Your task to perform on an android device: open app "Facebook" (install if not already installed) Image 0: 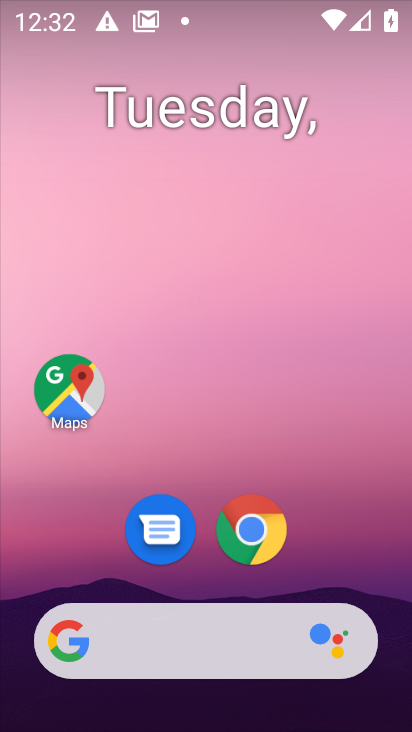
Step 0: drag from (202, 652) to (172, 177)
Your task to perform on an android device: open app "Facebook" (install if not already installed) Image 1: 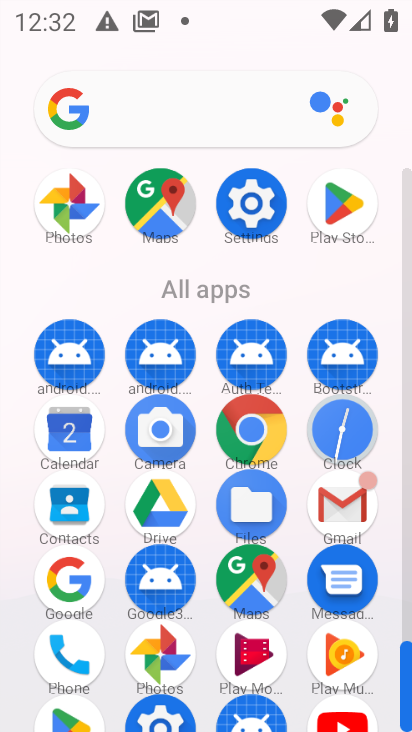
Step 1: click (322, 227)
Your task to perform on an android device: open app "Facebook" (install if not already installed) Image 2: 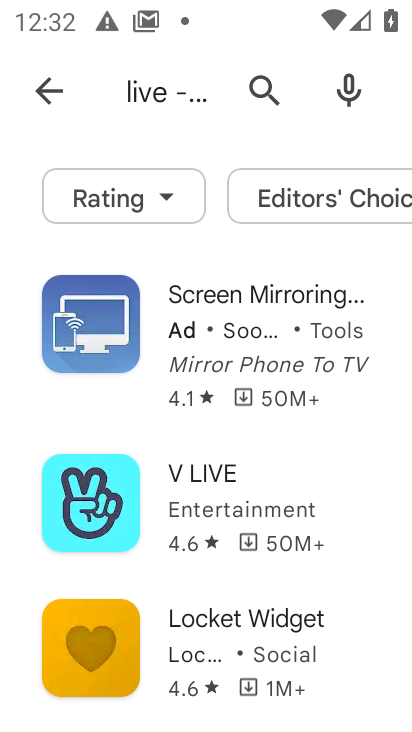
Step 2: click (268, 91)
Your task to perform on an android device: open app "Facebook" (install if not already installed) Image 3: 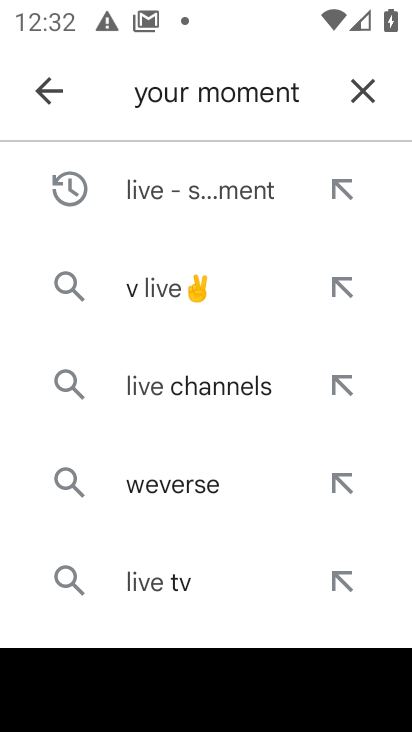
Step 3: click (354, 96)
Your task to perform on an android device: open app "Facebook" (install if not already installed) Image 4: 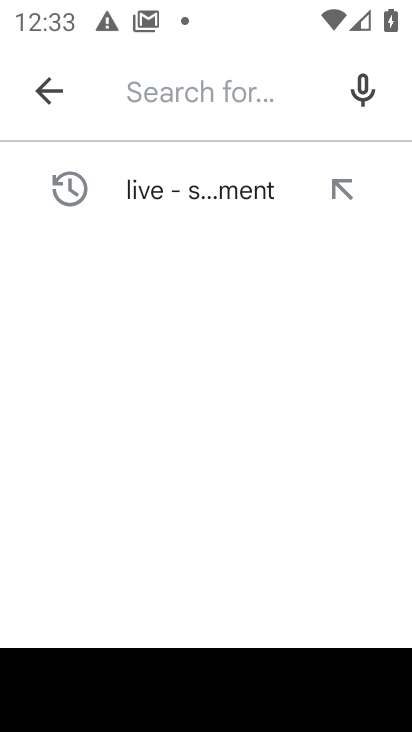
Step 4: type "facebook"
Your task to perform on an android device: open app "Facebook" (install if not already installed) Image 5: 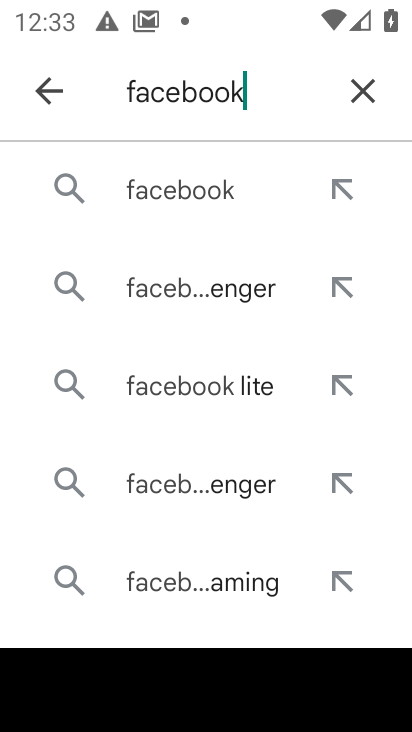
Step 5: click (179, 203)
Your task to perform on an android device: open app "Facebook" (install if not already installed) Image 6: 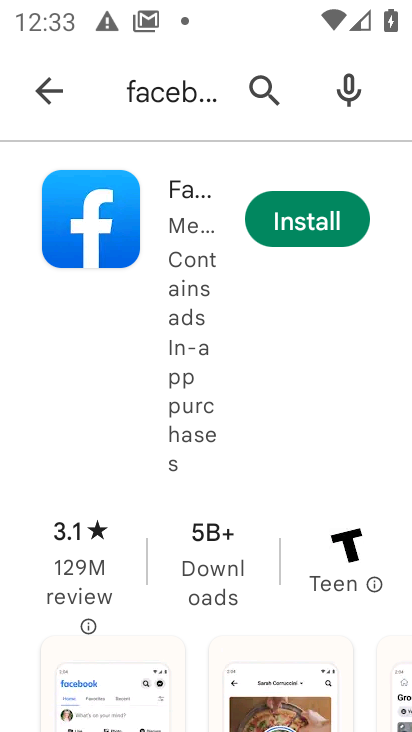
Step 6: click (304, 237)
Your task to perform on an android device: open app "Facebook" (install if not already installed) Image 7: 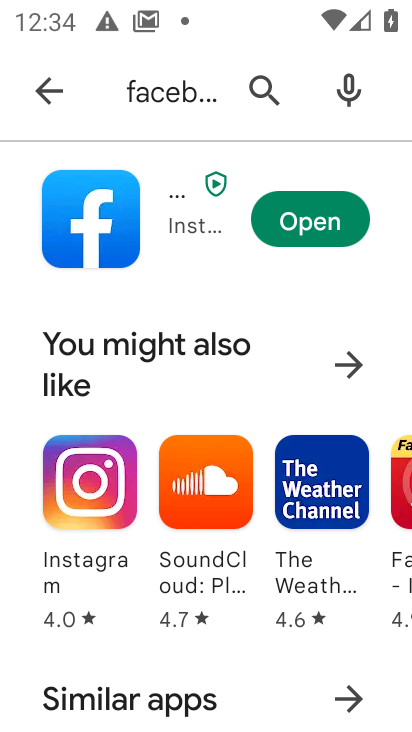
Step 7: click (300, 215)
Your task to perform on an android device: open app "Facebook" (install if not already installed) Image 8: 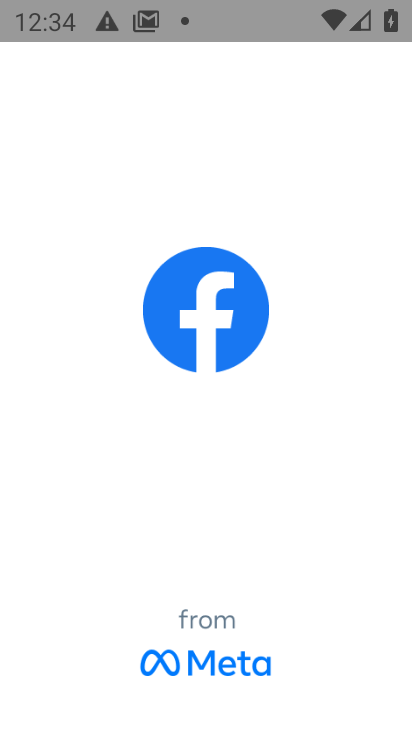
Step 8: task complete